Your task to perform on an android device: check the backup settings in the google photos Image 0: 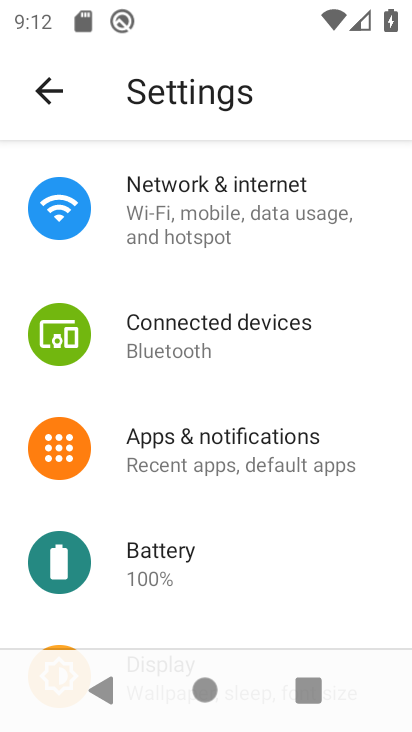
Step 0: press home button
Your task to perform on an android device: check the backup settings in the google photos Image 1: 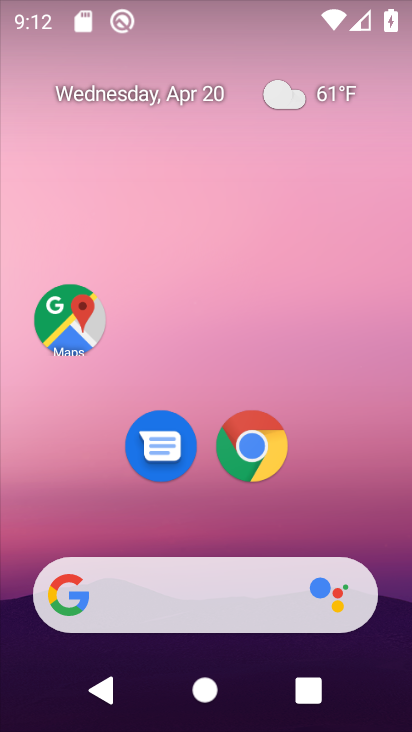
Step 1: drag from (399, 488) to (343, 139)
Your task to perform on an android device: check the backup settings in the google photos Image 2: 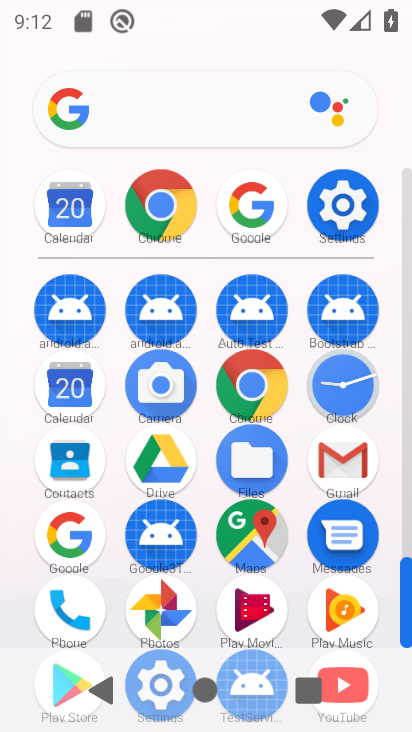
Step 2: click (154, 610)
Your task to perform on an android device: check the backup settings in the google photos Image 3: 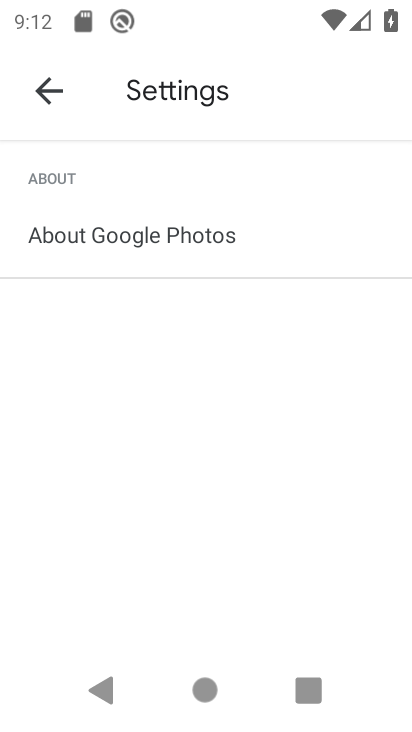
Step 3: click (47, 100)
Your task to perform on an android device: check the backup settings in the google photos Image 4: 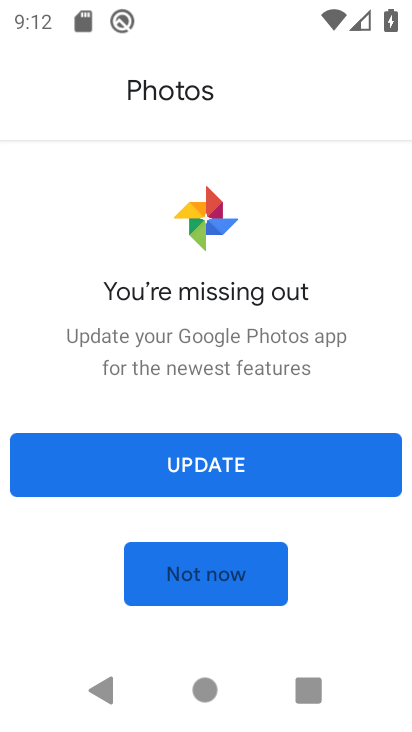
Step 4: click (238, 461)
Your task to perform on an android device: check the backup settings in the google photos Image 5: 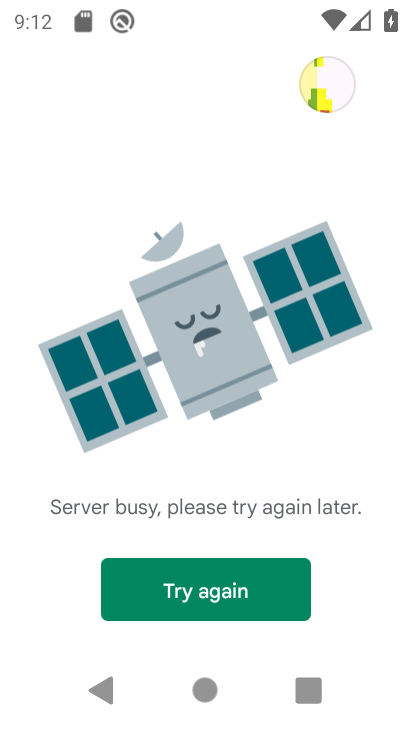
Step 5: task complete